Your task to perform on an android device: snooze an email in the gmail app Image 0: 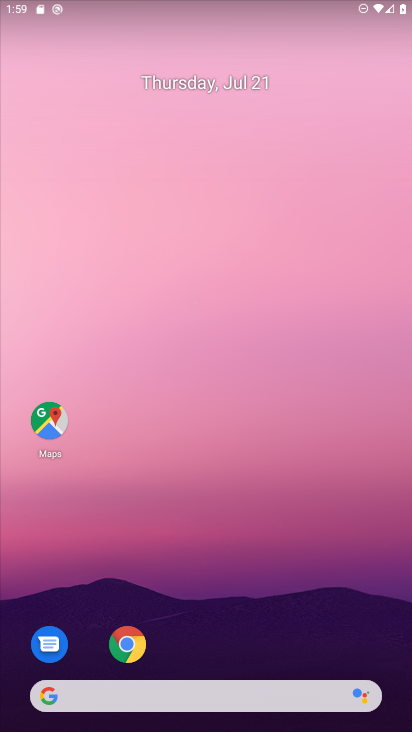
Step 0: drag from (279, 615) to (222, 107)
Your task to perform on an android device: snooze an email in the gmail app Image 1: 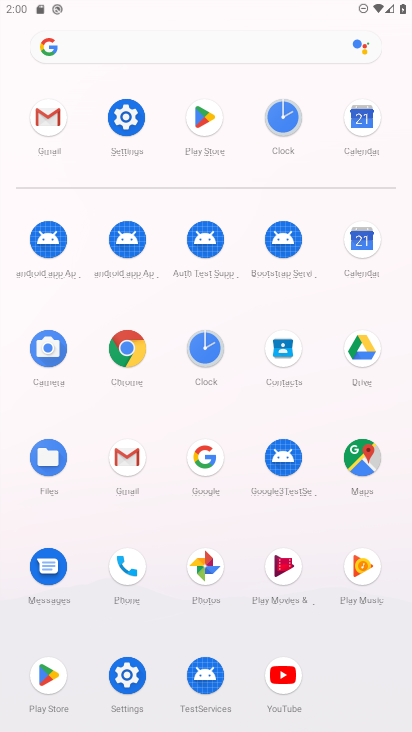
Step 1: click (124, 457)
Your task to perform on an android device: snooze an email in the gmail app Image 2: 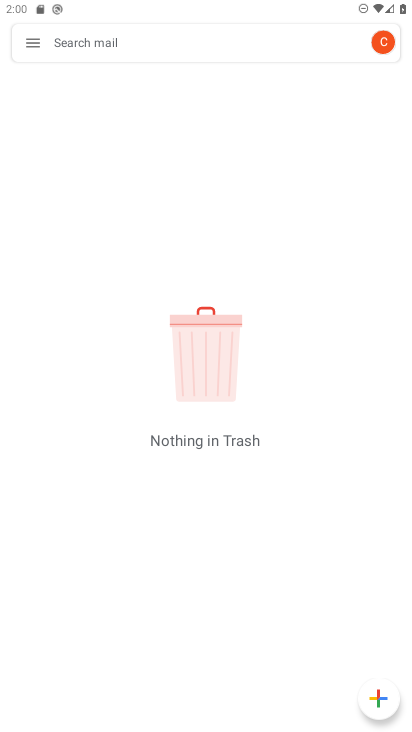
Step 2: click (25, 41)
Your task to perform on an android device: snooze an email in the gmail app Image 3: 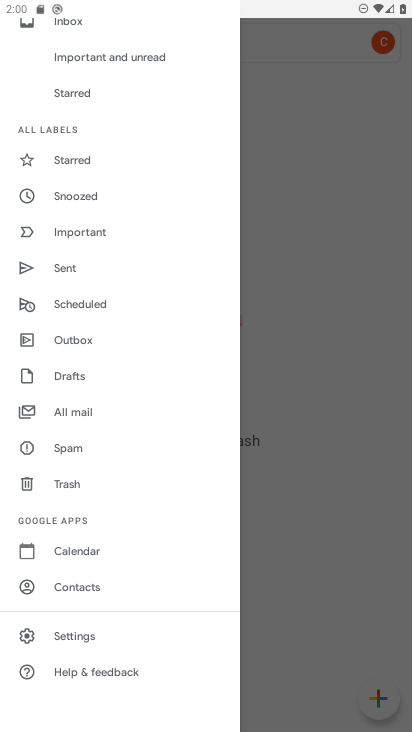
Step 3: click (65, 413)
Your task to perform on an android device: snooze an email in the gmail app Image 4: 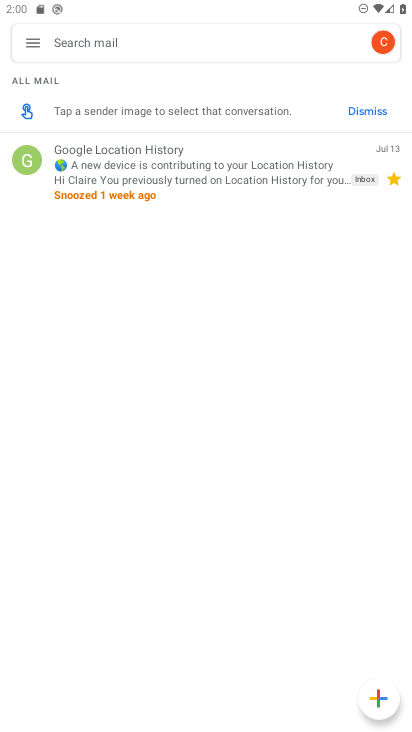
Step 4: click (271, 175)
Your task to perform on an android device: snooze an email in the gmail app Image 5: 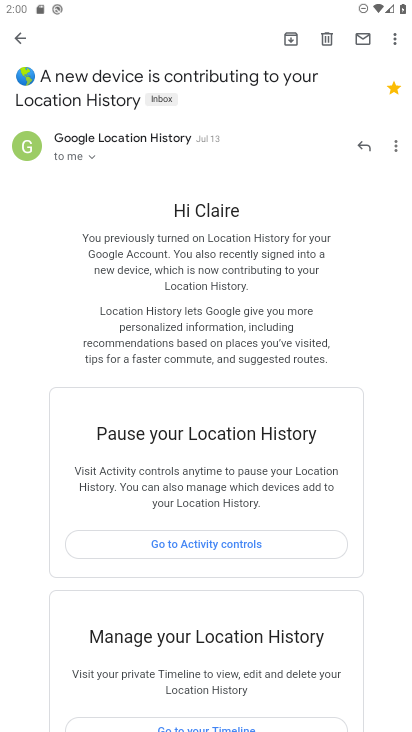
Step 5: click (396, 40)
Your task to perform on an android device: snooze an email in the gmail app Image 6: 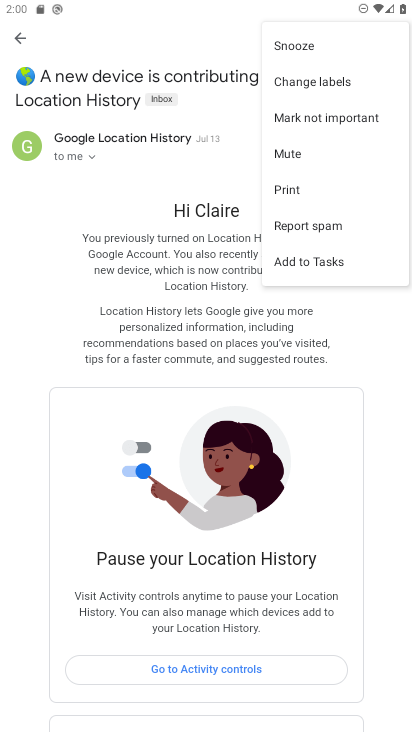
Step 6: click (352, 43)
Your task to perform on an android device: snooze an email in the gmail app Image 7: 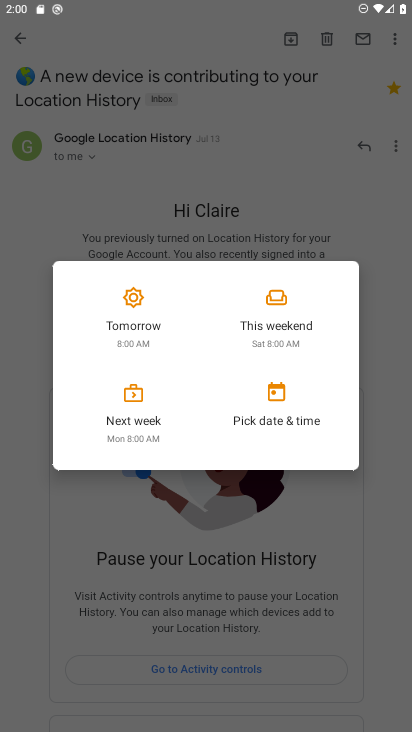
Step 7: click (165, 319)
Your task to perform on an android device: snooze an email in the gmail app Image 8: 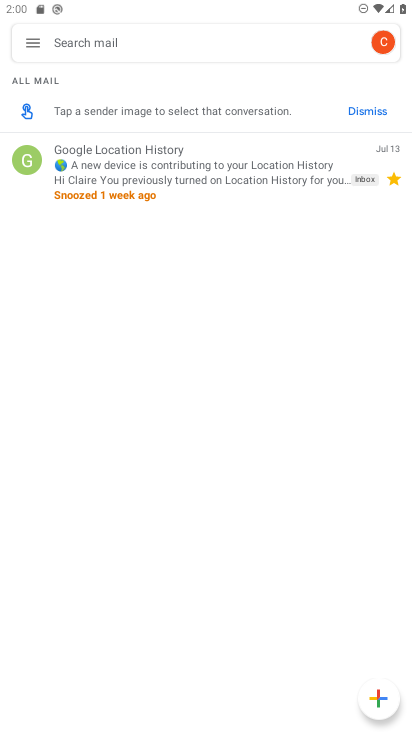
Step 8: task complete